Your task to perform on an android device: Open Yahoo.com Image 0: 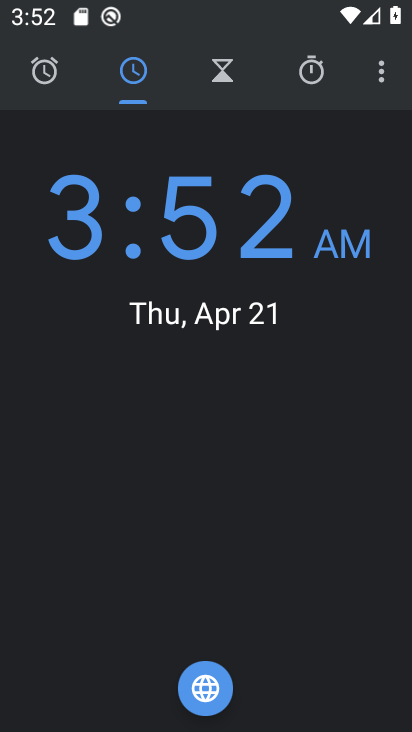
Step 0: press home button
Your task to perform on an android device: Open Yahoo.com Image 1: 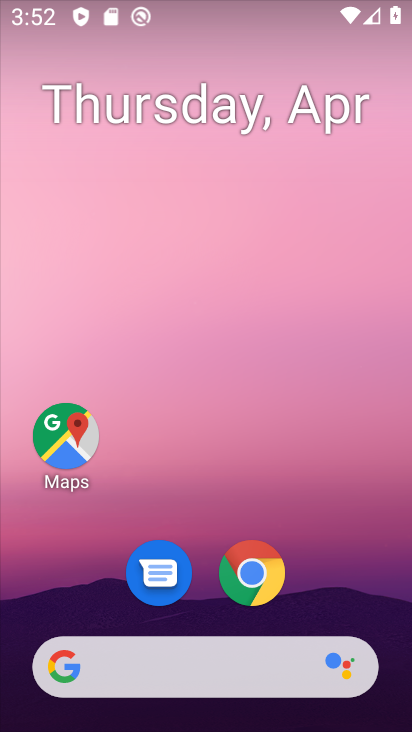
Step 1: drag from (256, 357) to (251, 111)
Your task to perform on an android device: Open Yahoo.com Image 2: 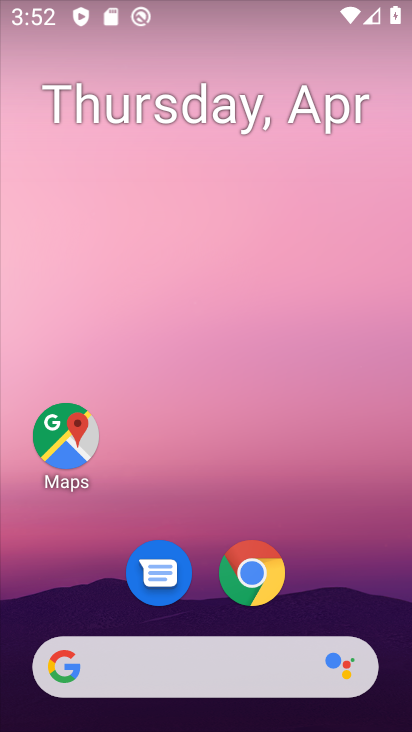
Step 2: drag from (208, 706) to (216, 37)
Your task to perform on an android device: Open Yahoo.com Image 3: 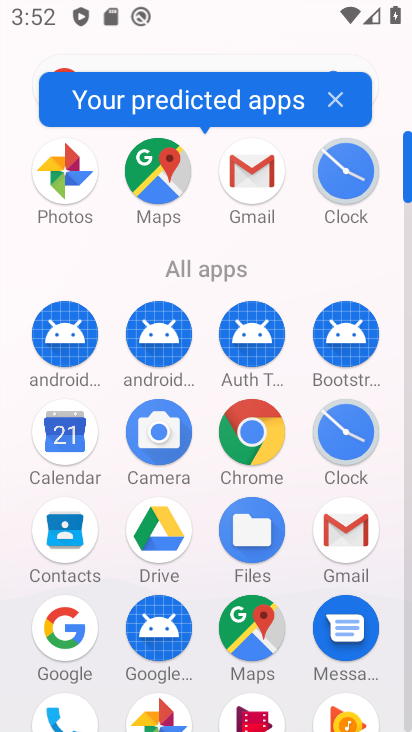
Step 3: click (250, 416)
Your task to perform on an android device: Open Yahoo.com Image 4: 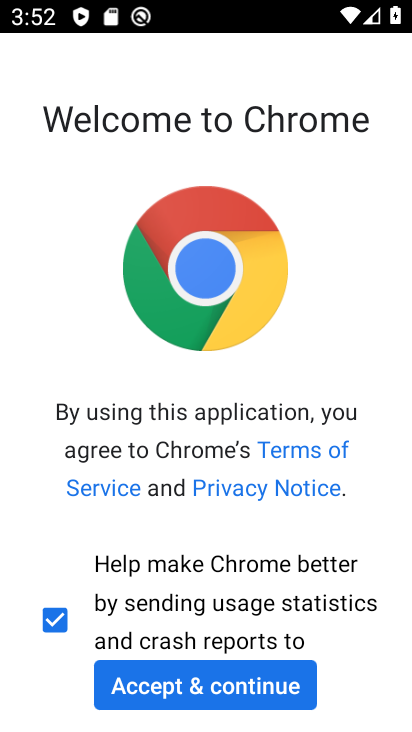
Step 4: click (203, 689)
Your task to perform on an android device: Open Yahoo.com Image 5: 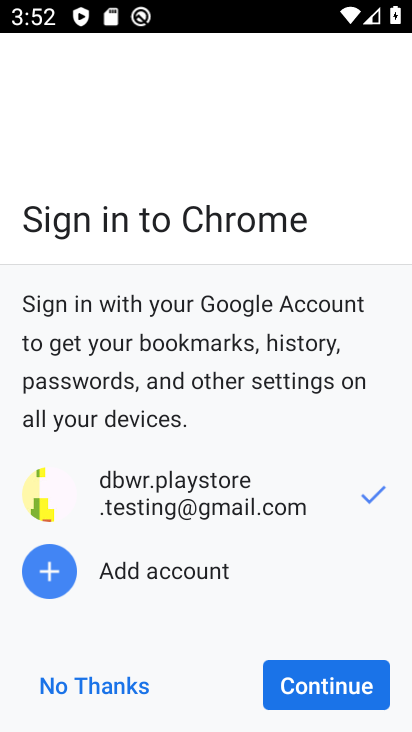
Step 5: click (312, 680)
Your task to perform on an android device: Open Yahoo.com Image 6: 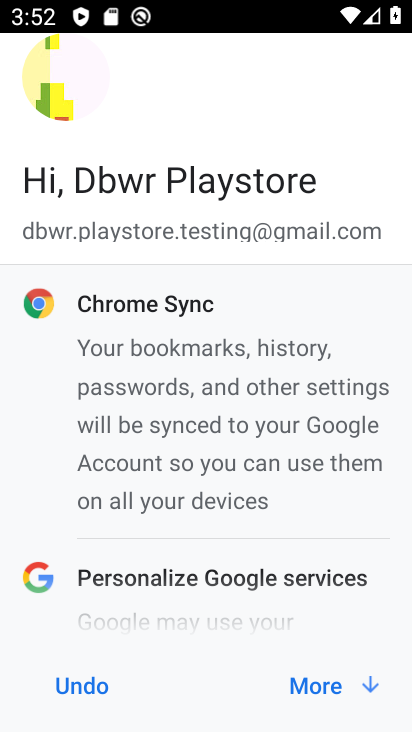
Step 6: click (361, 676)
Your task to perform on an android device: Open Yahoo.com Image 7: 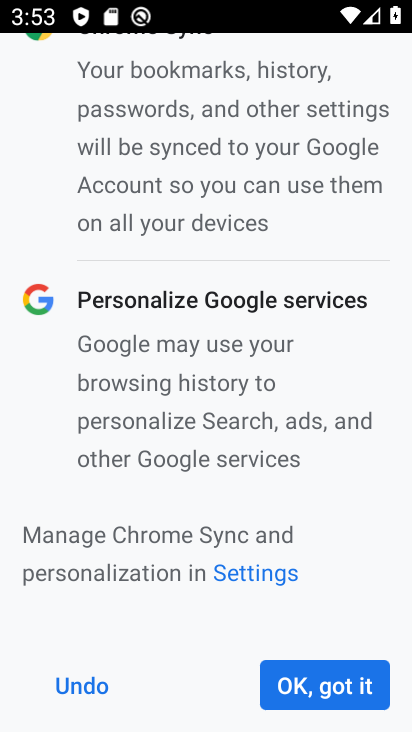
Step 7: click (341, 680)
Your task to perform on an android device: Open Yahoo.com Image 8: 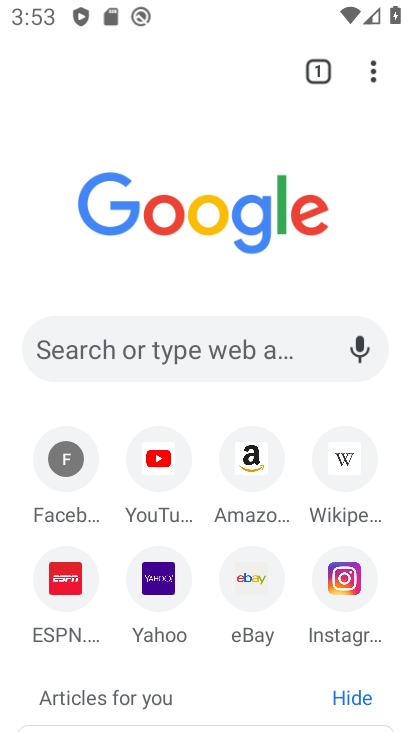
Step 8: click (152, 573)
Your task to perform on an android device: Open Yahoo.com Image 9: 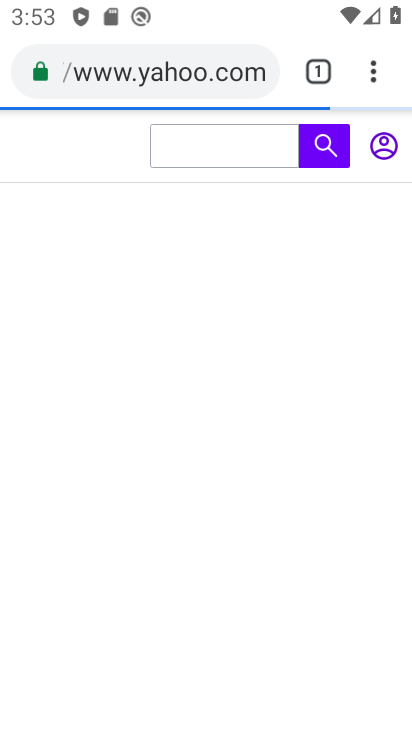
Step 9: task complete